Your task to perform on an android device: turn off translation in the chrome app Image 0: 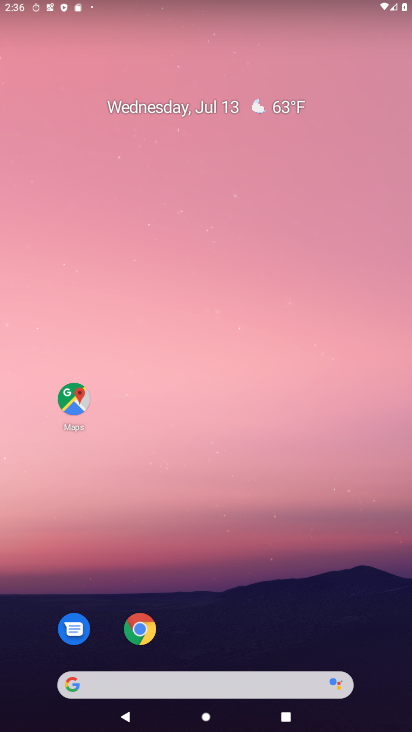
Step 0: click (260, 59)
Your task to perform on an android device: turn off translation in the chrome app Image 1: 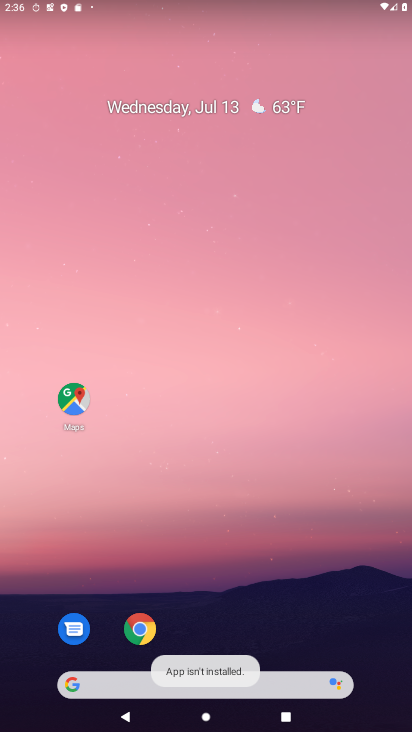
Step 1: drag from (203, 612) to (211, 157)
Your task to perform on an android device: turn off translation in the chrome app Image 2: 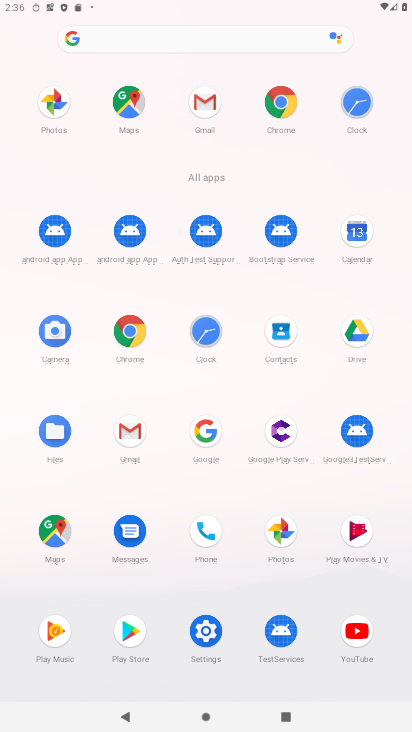
Step 2: click (128, 327)
Your task to perform on an android device: turn off translation in the chrome app Image 3: 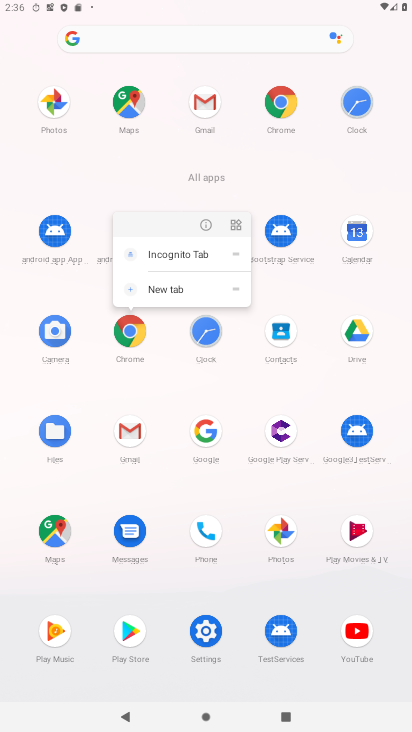
Step 3: click (206, 218)
Your task to perform on an android device: turn off translation in the chrome app Image 4: 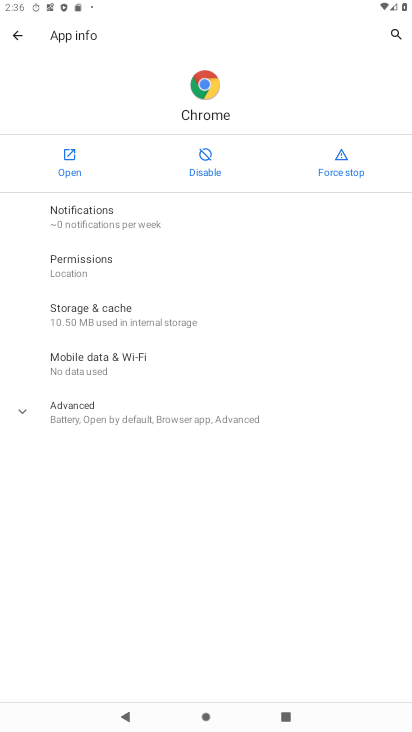
Step 4: click (67, 146)
Your task to perform on an android device: turn off translation in the chrome app Image 5: 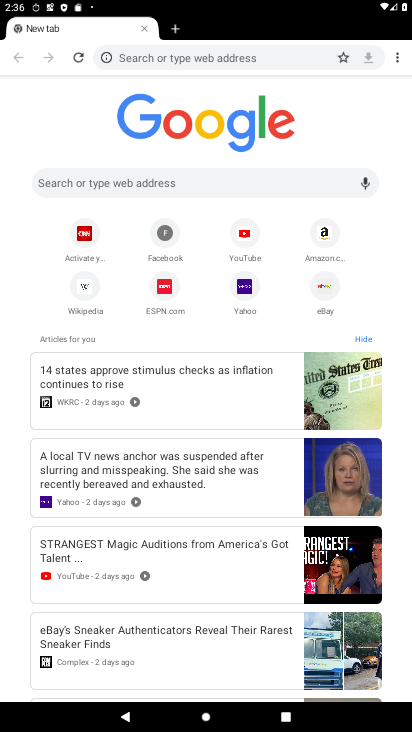
Step 5: click (396, 56)
Your task to perform on an android device: turn off translation in the chrome app Image 6: 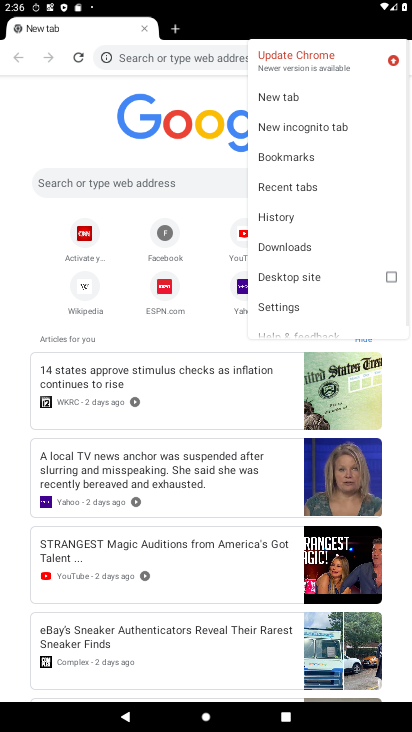
Step 6: click (283, 293)
Your task to perform on an android device: turn off translation in the chrome app Image 7: 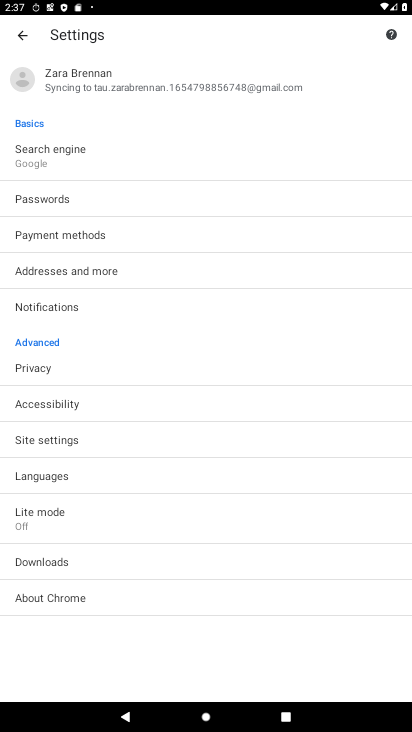
Step 7: click (70, 476)
Your task to perform on an android device: turn off translation in the chrome app Image 8: 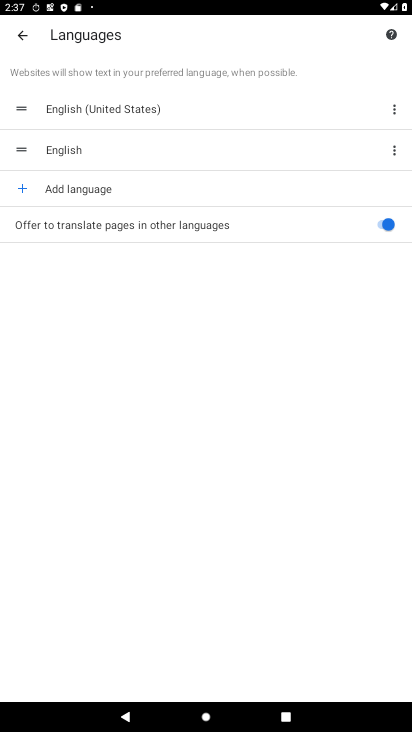
Step 8: click (378, 221)
Your task to perform on an android device: turn off translation in the chrome app Image 9: 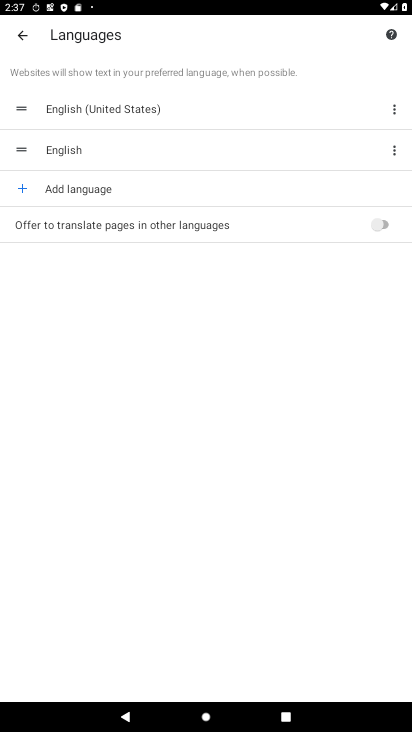
Step 9: task complete